Your task to perform on an android device: open the mobile data screen to see how much data has been used Image 0: 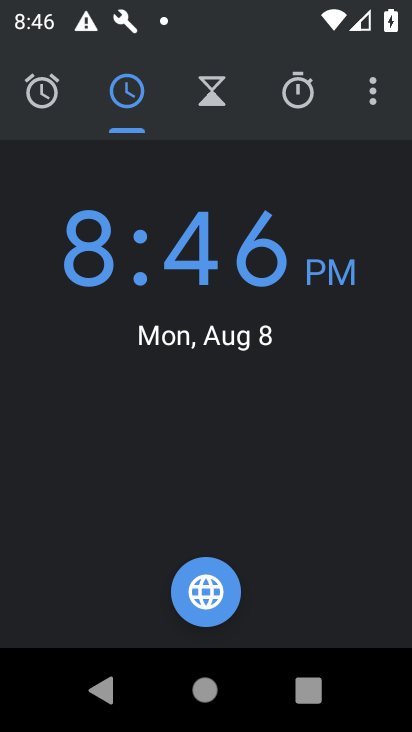
Step 0: press back button
Your task to perform on an android device: open the mobile data screen to see how much data has been used Image 1: 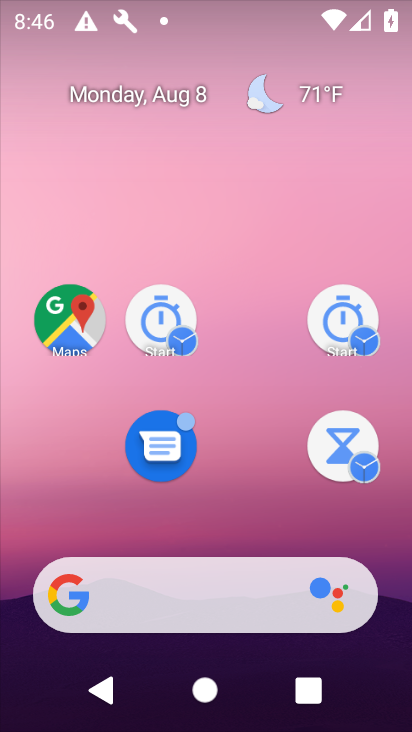
Step 1: drag from (194, 459) to (104, 34)
Your task to perform on an android device: open the mobile data screen to see how much data has been used Image 2: 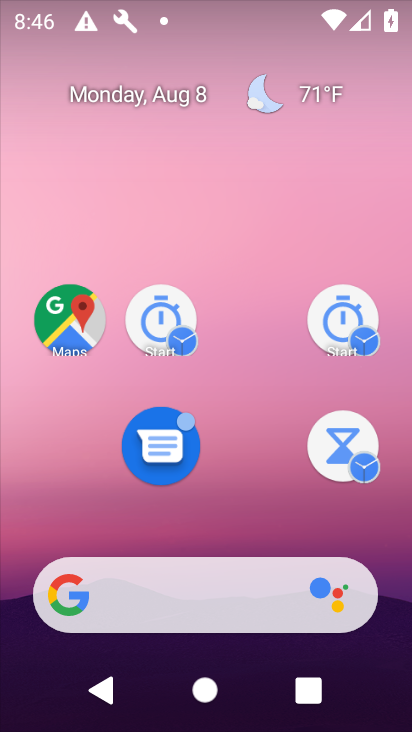
Step 2: drag from (244, 439) to (270, 114)
Your task to perform on an android device: open the mobile data screen to see how much data has been used Image 3: 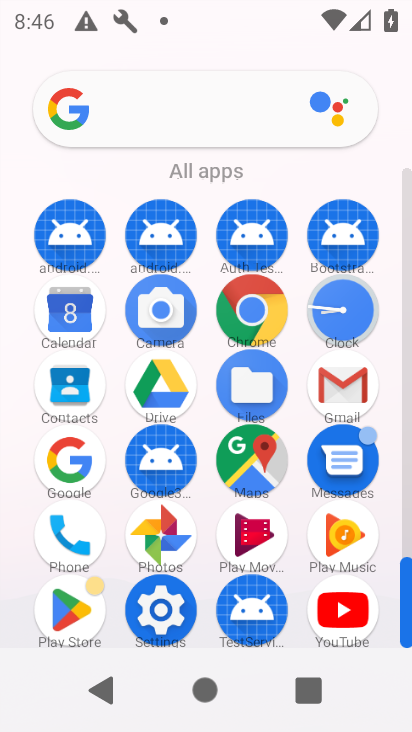
Step 3: click (166, 607)
Your task to perform on an android device: open the mobile data screen to see how much data has been used Image 4: 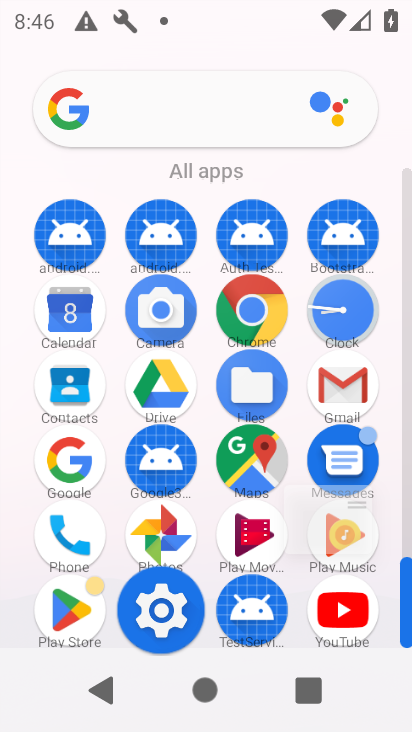
Step 4: click (163, 607)
Your task to perform on an android device: open the mobile data screen to see how much data has been used Image 5: 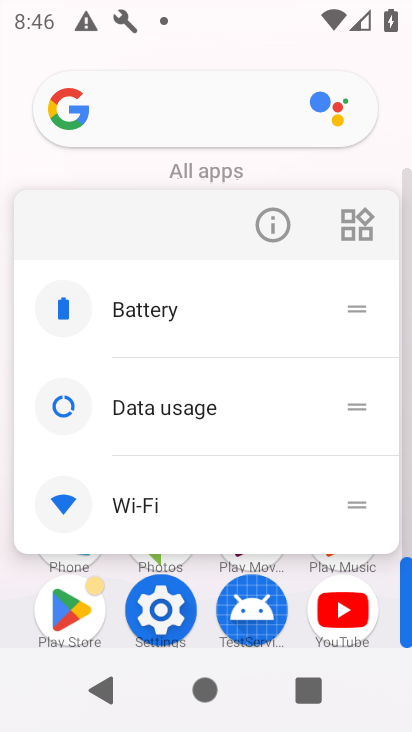
Step 5: click (163, 607)
Your task to perform on an android device: open the mobile data screen to see how much data has been used Image 6: 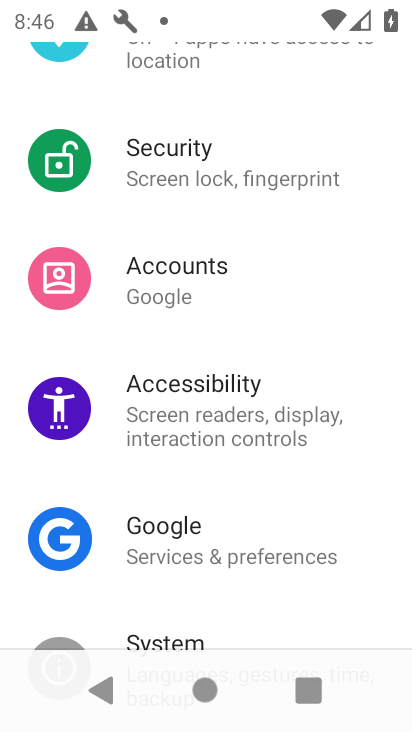
Step 6: drag from (172, 136) to (190, 486)
Your task to perform on an android device: open the mobile data screen to see how much data has been used Image 7: 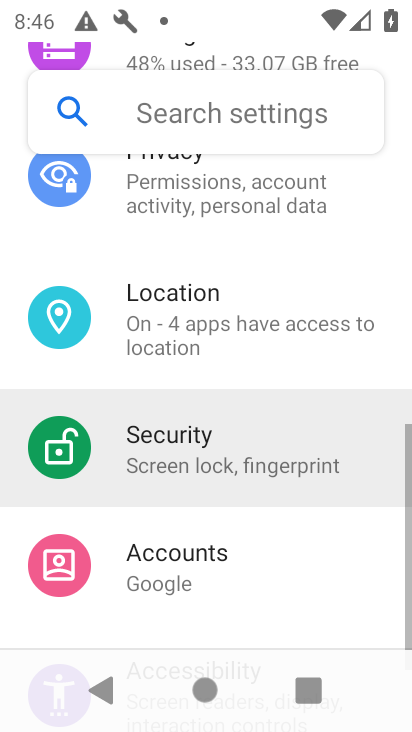
Step 7: drag from (176, 211) to (192, 630)
Your task to perform on an android device: open the mobile data screen to see how much data has been used Image 8: 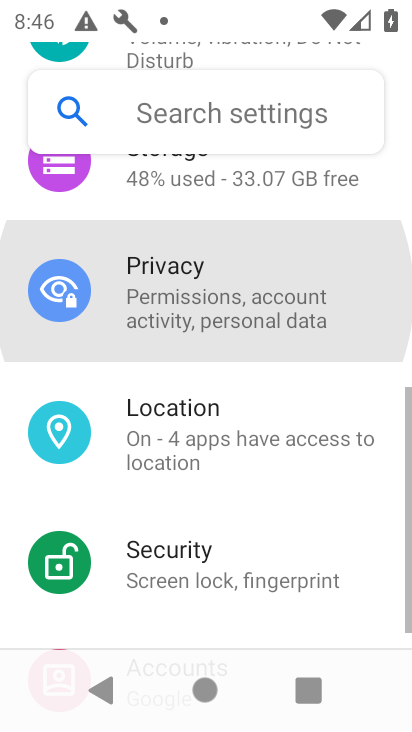
Step 8: drag from (161, 333) to (182, 546)
Your task to perform on an android device: open the mobile data screen to see how much data has been used Image 9: 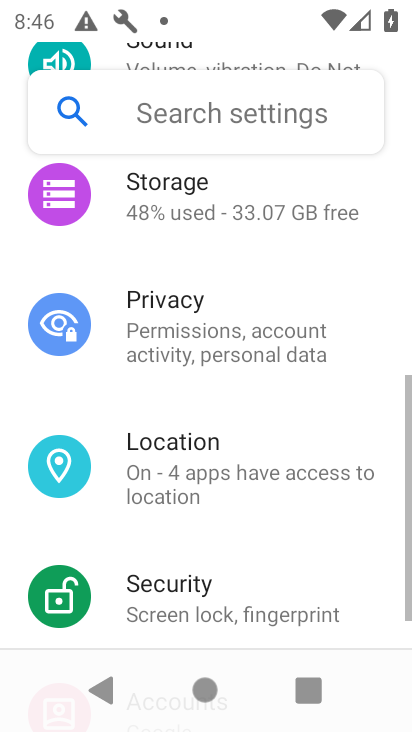
Step 9: drag from (181, 216) to (234, 510)
Your task to perform on an android device: open the mobile data screen to see how much data has been used Image 10: 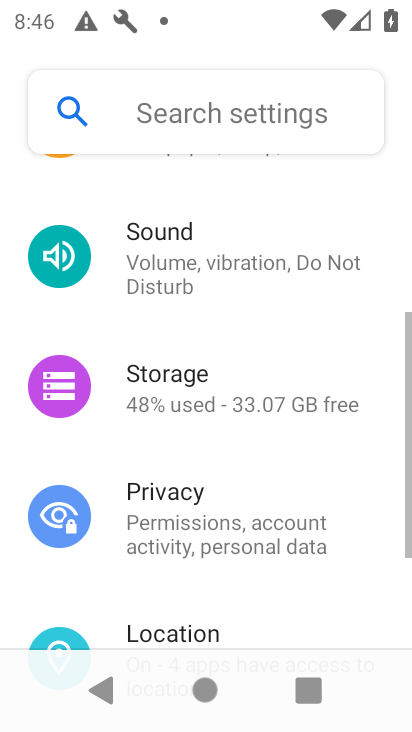
Step 10: click (212, 459)
Your task to perform on an android device: open the mobile data screen to see how much data has been used Image 11: 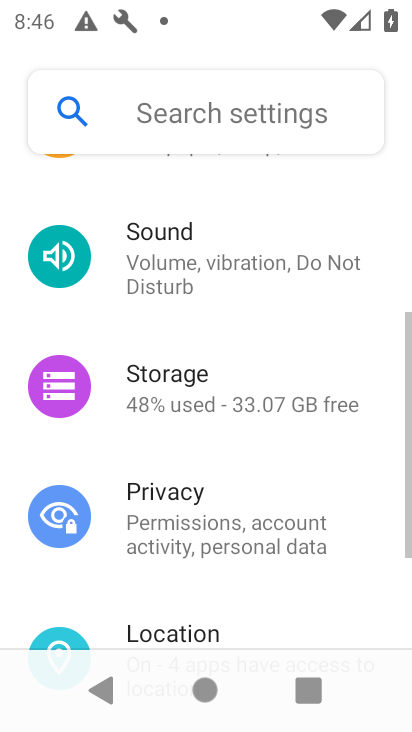
Step 11: drag from (151, 198) to (220, 505)
Your task to perform on an android device: open the mobile data screen to see how much data has been used Image 12: 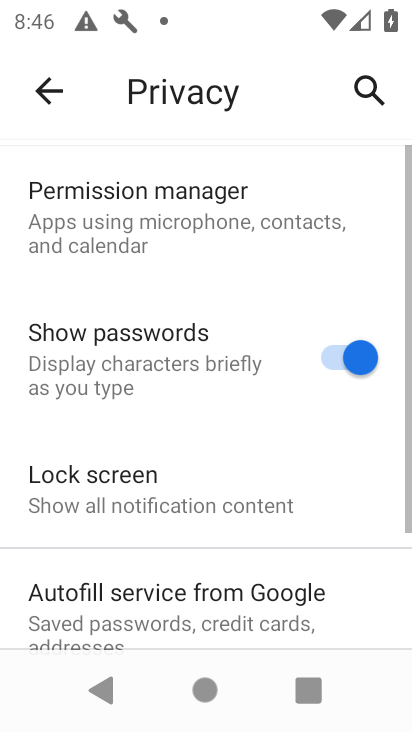
Step 12: click (45, 82)
Your task to perform on an android device: open the mobile data screen to see how much data has been used Image 13: 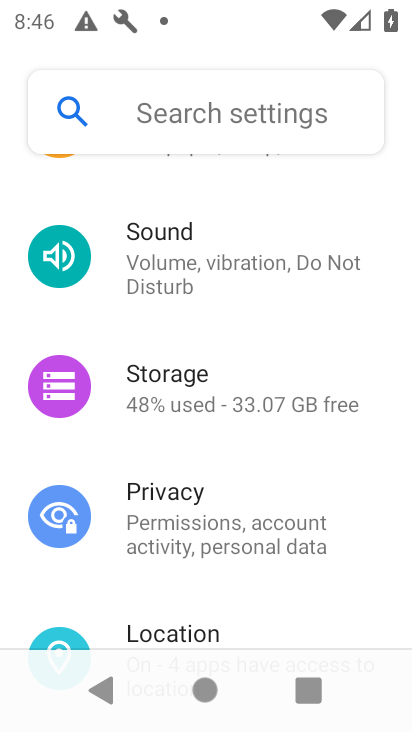
Step 13: drag from (152, 303) to (181, 531)
Your task to perform on an android device: open the mobile data screen to see how much data has been used Image 14: 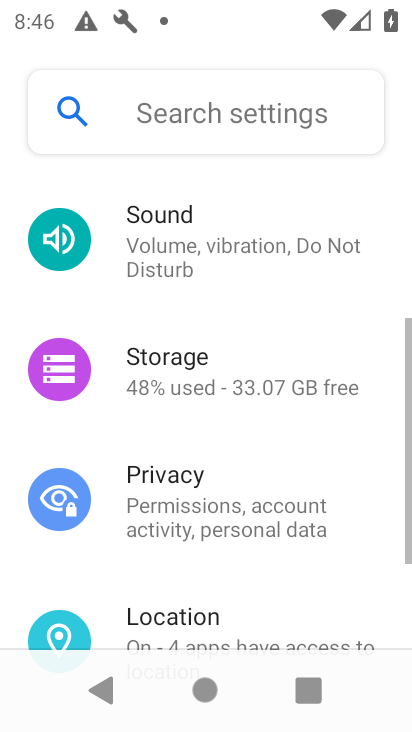
Step 14: drag from (229, 372) to (254, 611)
Your task to perform on an android device: open the mobile data screen to see how much data has been used Image 15: 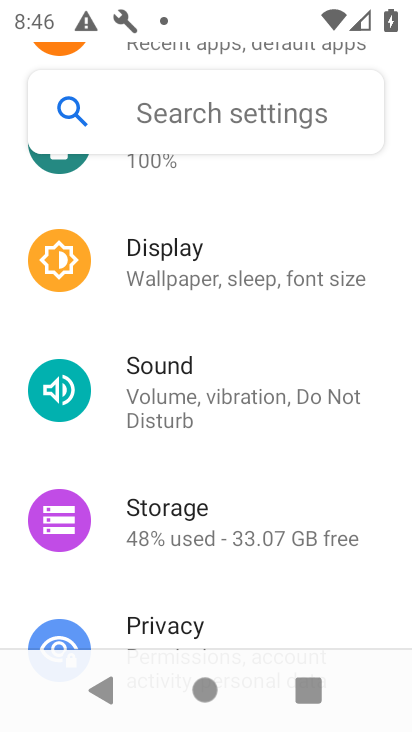
Step 15: drag from (238, 354) to (298, 646)
Your task to perform on an android device: open the mobile data screen to see how much data has been used Image 16: 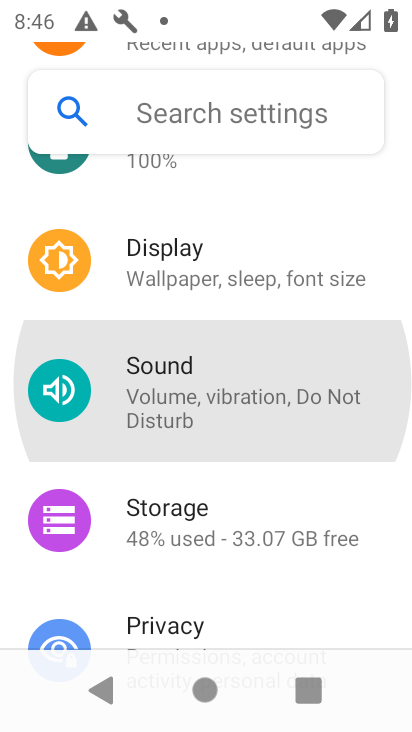
Step 16: drag from (200, 426) to (216, 630)
Your task to perform on an android device: open the mobile data screen to see how much data has been used Image 17: 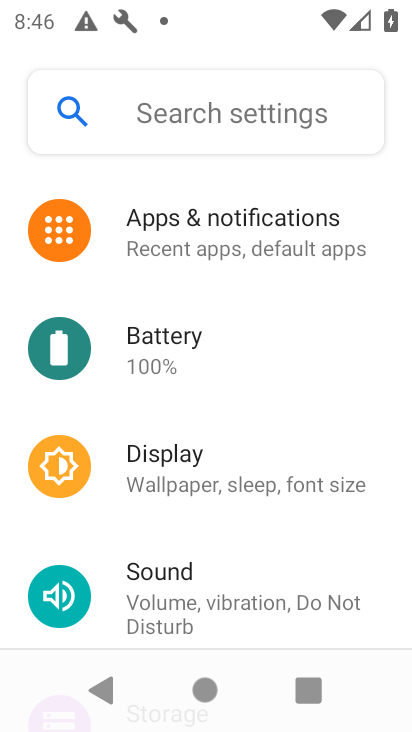
Step 17: drag from (222, 281) to (229, 721)
Your task to perform on an android device: open the mobile data screen to see how much data has been used Image 18: 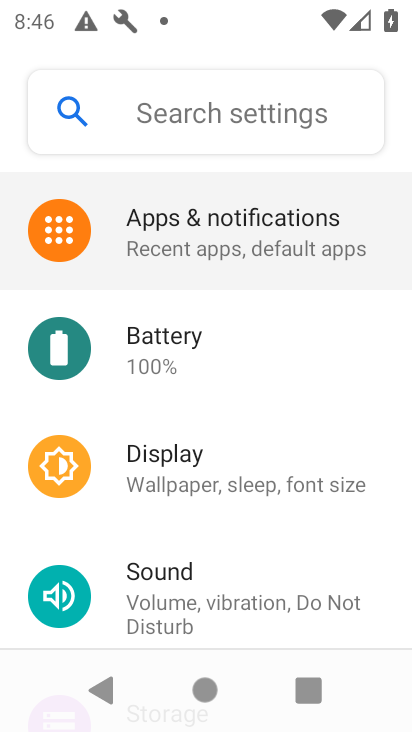
Step 18: drag from (156, 357) to (197, 603)
Your task to perform on an android device: open the mobile data screen to see how much data has been used Image 19: 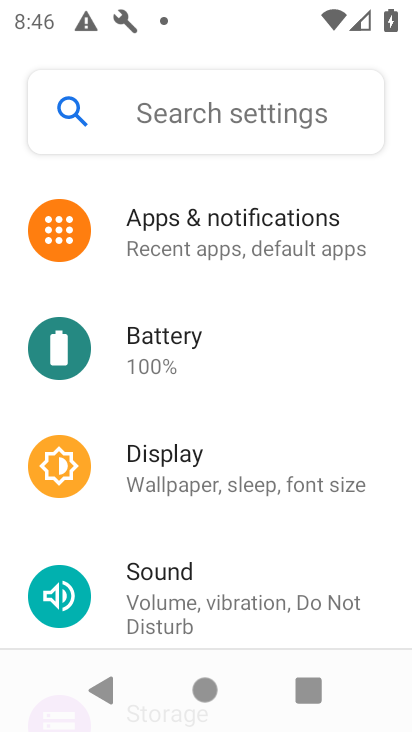
Step 19: drag from (204, 365) to (212, 493)
Your task to perform on an android device: open the mobile data screen to see how much data has been used Image 20: 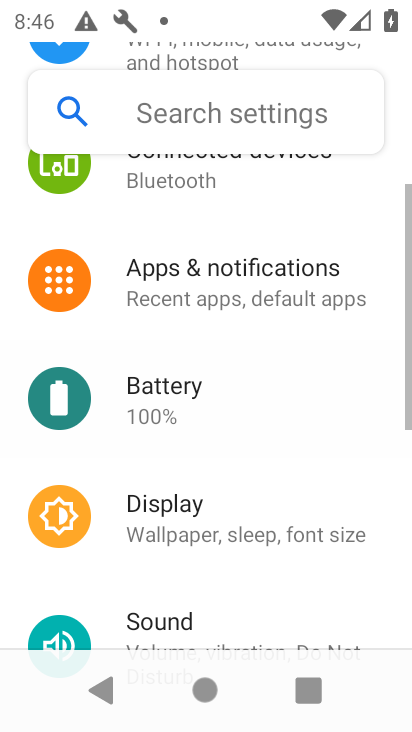
Step 20: drag from (246, 266) to (256, 581)
Your task to perform on an android device: open the mobile data screen to see how much data has been used Image 21: 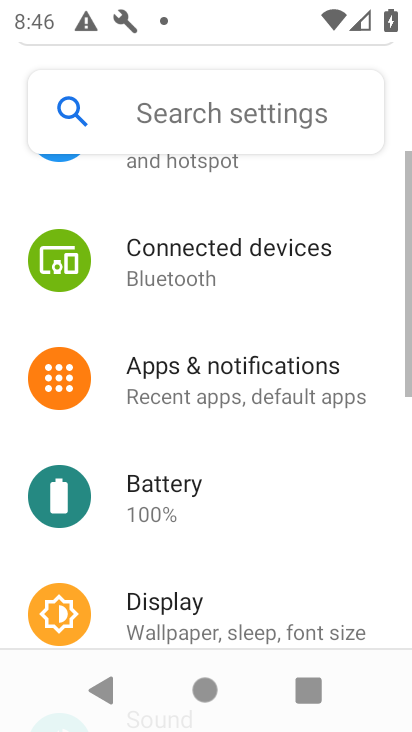
Step 21: drag from (197, 262) to (229, 488)
Your task to perform on an android device: open the mobile data screen to see how much data has been used Image 22: 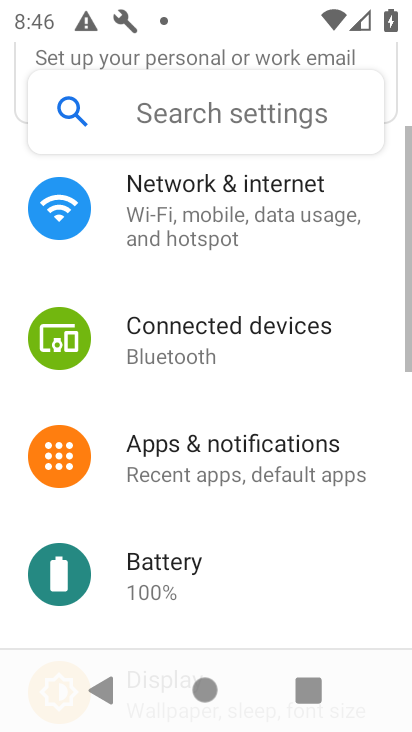
Step 22: drag from (218, 394) to (225, 584)
Your task to perform on an android device: open the mobile data screen to see how much data has been used Image 23: 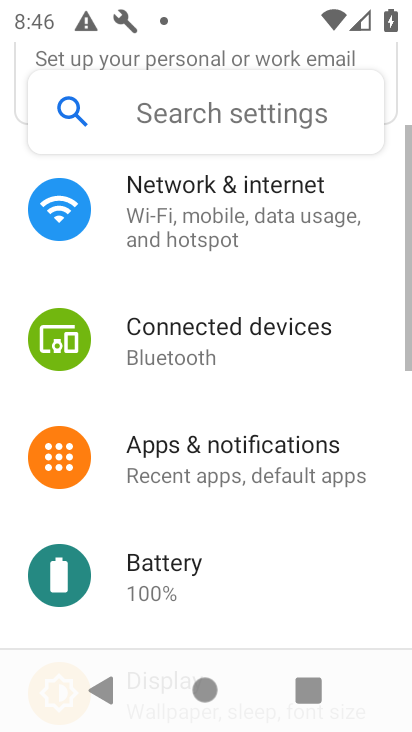
Step 23: drag from (185, 305) to (187, 578)
Your task to perform on an android device: open the mobile data screen to see how much data has been used Image 24: 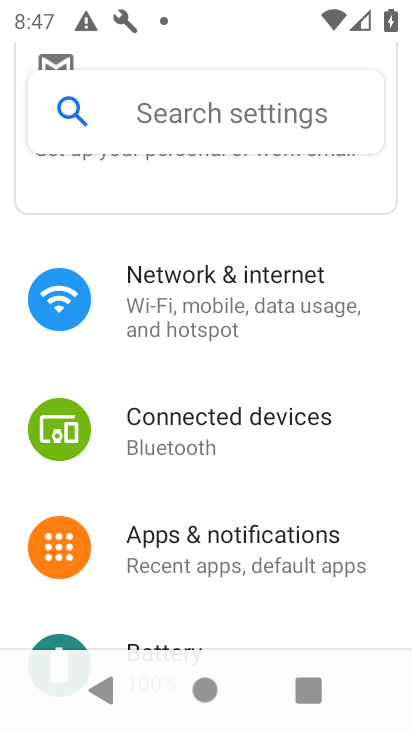
Step 24: drag from (134, 290) to (209, 571)
Your task to perform on an android device: open the mobile data screen to see how much data has been used Image 25: 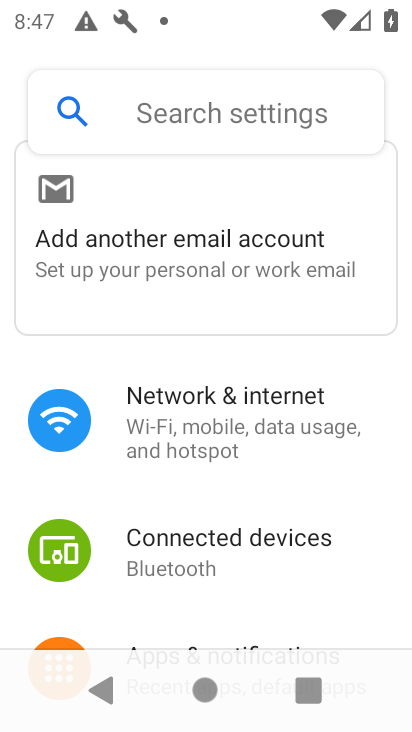
Step 25: click (191, 425)
Your task to perform on an android device: open the mobile data screen to see how much data has been used Image 26: 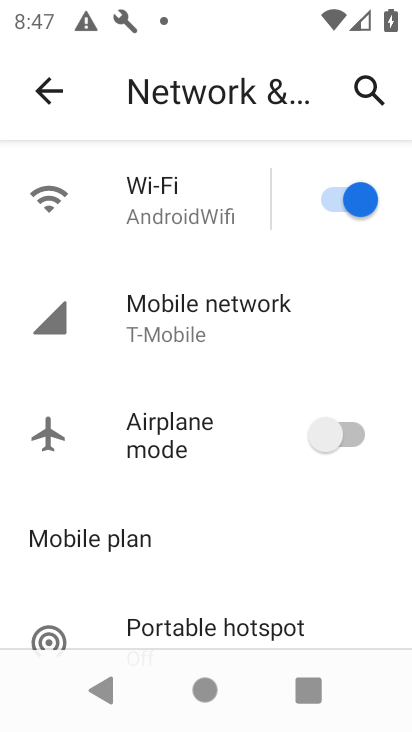
Step 26: click (171, 324)
Your task to perform on an android device: open the mobile data screen to see how much data has been used Image 27: 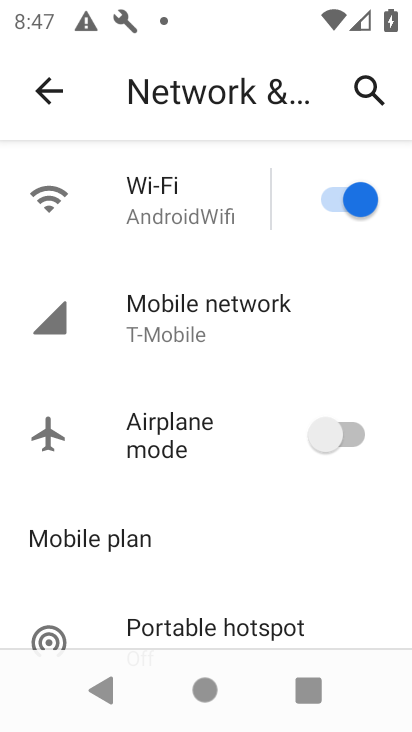
Step 27: click (171, 324)
Your task to perform on an android device: open the mobile data screen to see how much data has been used Image 28: 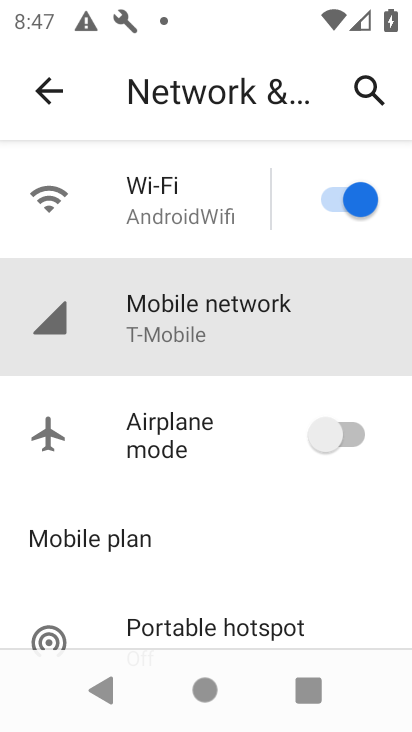
Step 28: click (170, 324)
Your task to perform on an android device: open the mobile data screen to see how much data has been used Image 29: 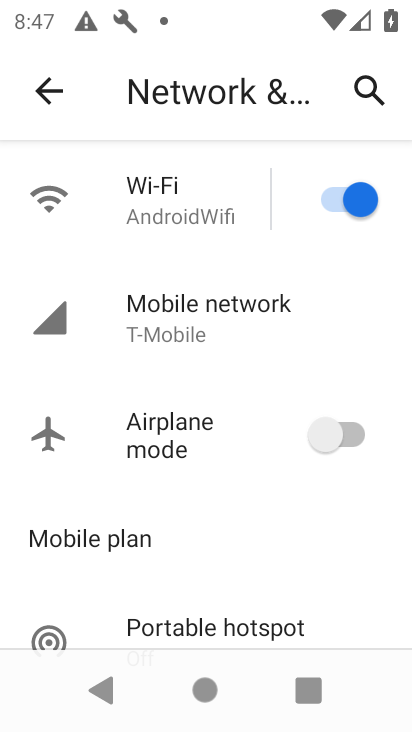
Step 29: click (170, 324)
Your task to perform on an android device: open the mobile data screen to see how much data has been used Image 30: 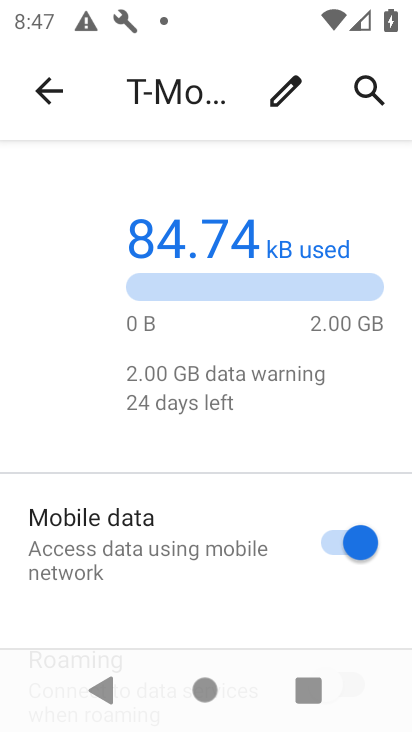
Step 30: task complete